Your task to perform on an android device: check out phone information Image 0: 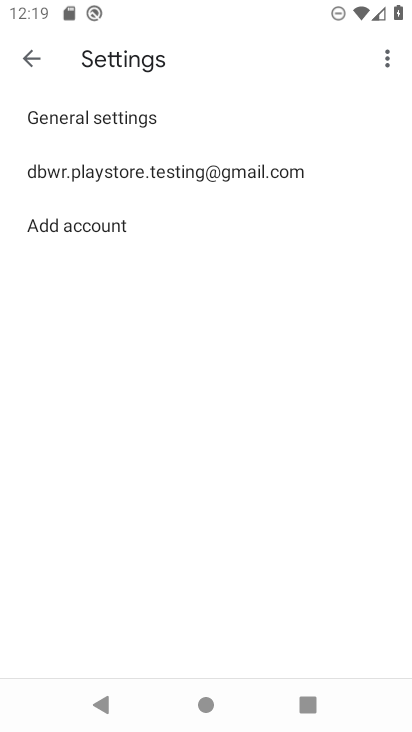
Step 0: press home button
Your task to perform on an android device: check out phone information Image 1: 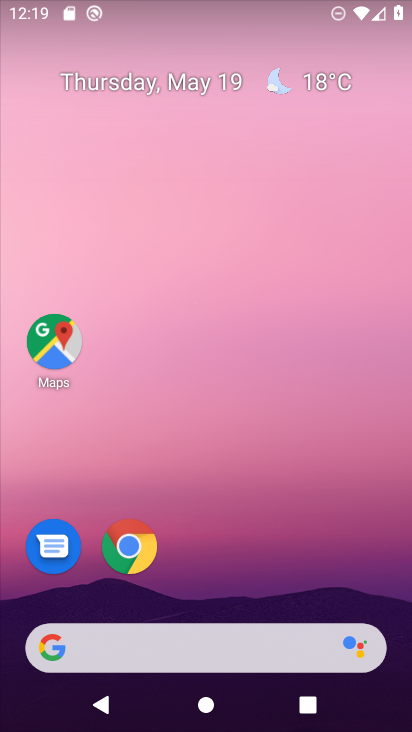
Step 1: drag from (231, 726) to (231, 100)
Your task to perform on an android device: check out phone information Image 2: 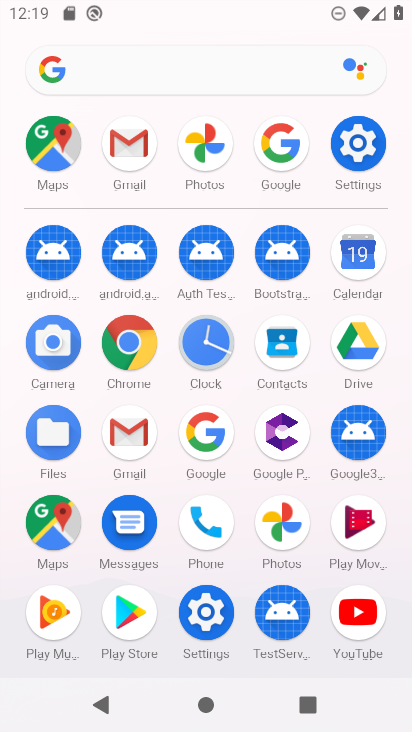
Step 2: click (365, 149)
Your task to perform on an android device: check out phone information Image 3: 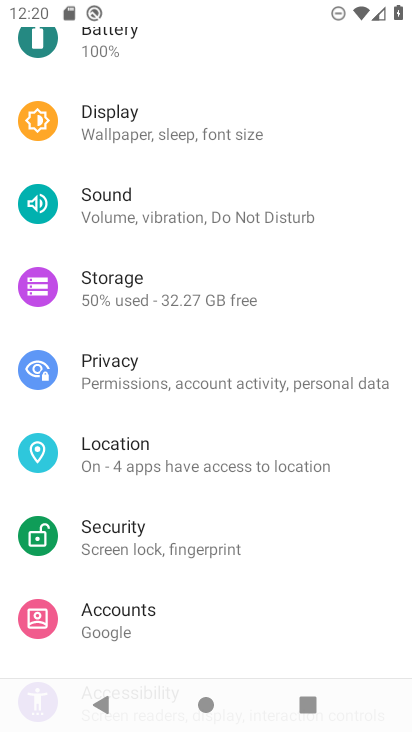
Step 3: drag from (216, 626) to (257, 274)
Your task to perform on an android device: check out phone information Image 4: 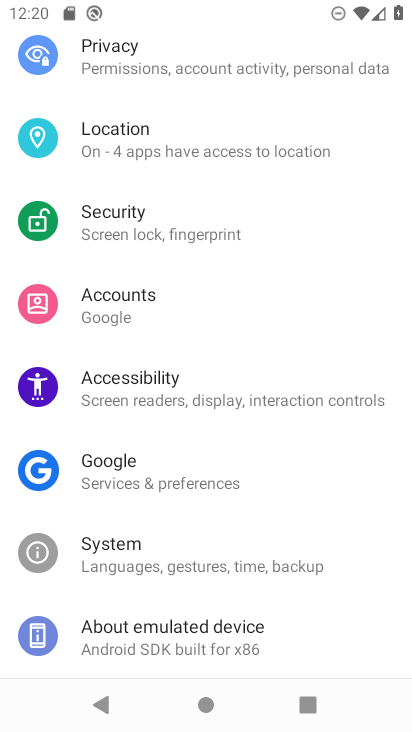
Step 4: drag from (251, 624) to (272, 273)
Your task to perform on an android device: check out phone information Image 5: 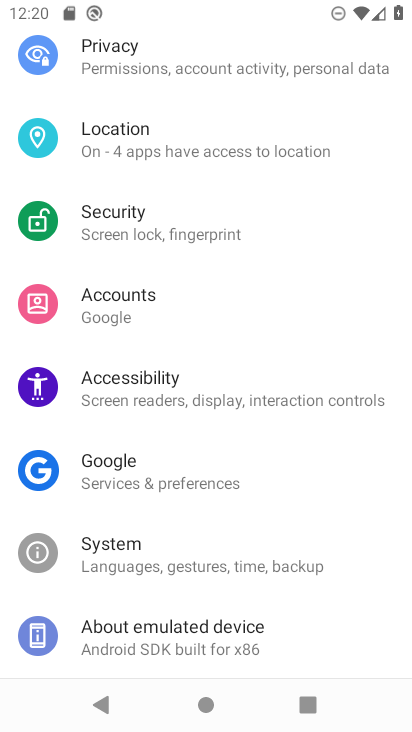
Step 5: click (169, 641)
Your task to perform on an android device: check out phone information Image 6: 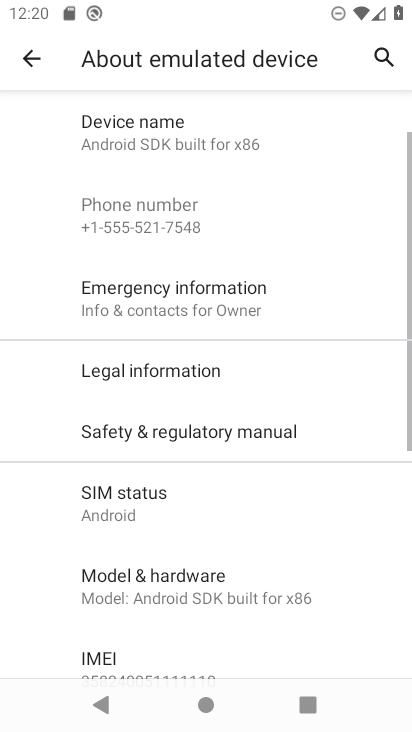
Step 6: task complete